Your task to perform on an android device: turn pop-ups on in chrome Image 0: 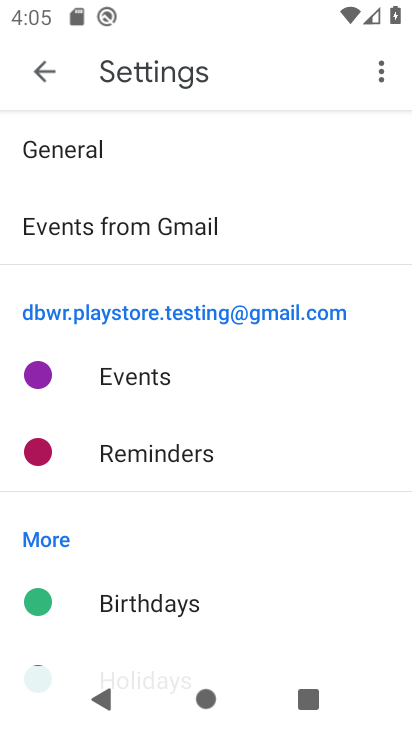
Step 0: press home button
Your task to perform on an android device: turn pop-ups on in chrome Image 1: 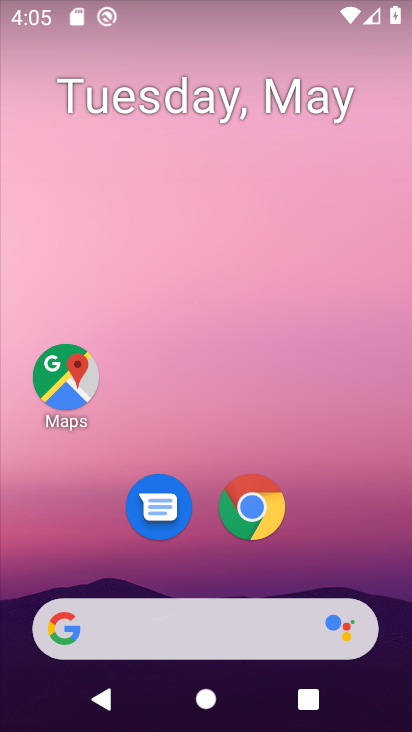
Step 1: click (254, 506)
Your task to perform on an android device: turn pop-ups on in chrome Image 2: 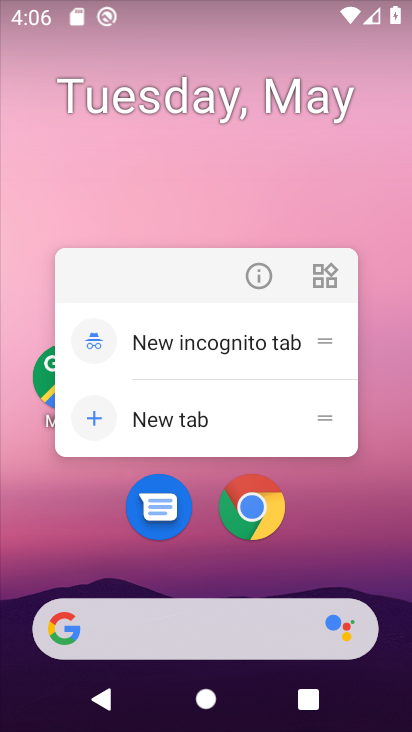
Step 2: click (254, 506)
Your task to perform on an android device: turn pop-ups on in chrome Image 3: 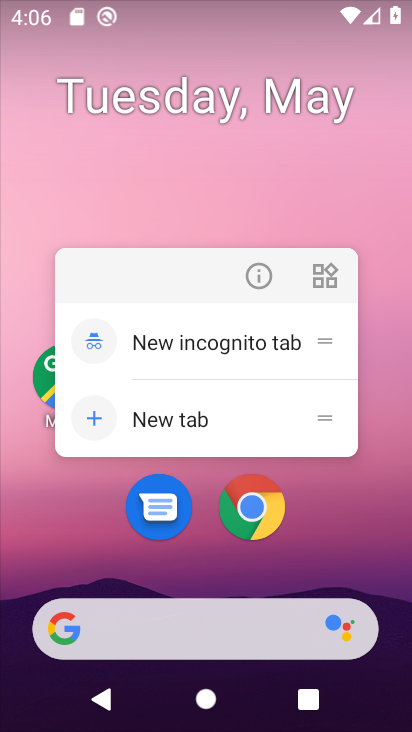
Step 3: click (254, 506)
Your task to perform on an android device: turn pop-ups on in chrome Image 4: 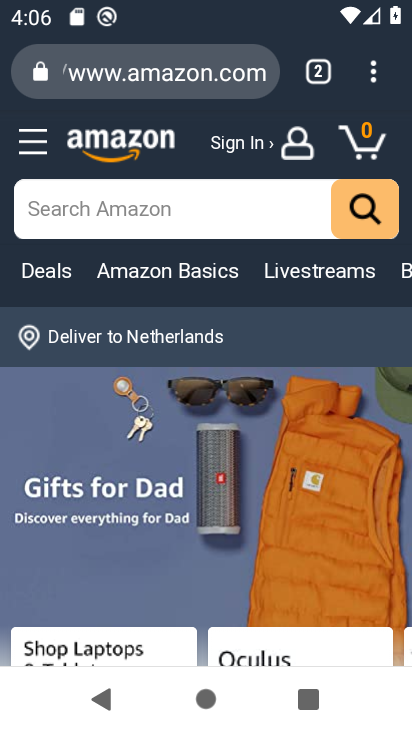
Step 4: click (364, 69)
Your task to perform on an android device: turn pop-ups on in chrome Image 5: 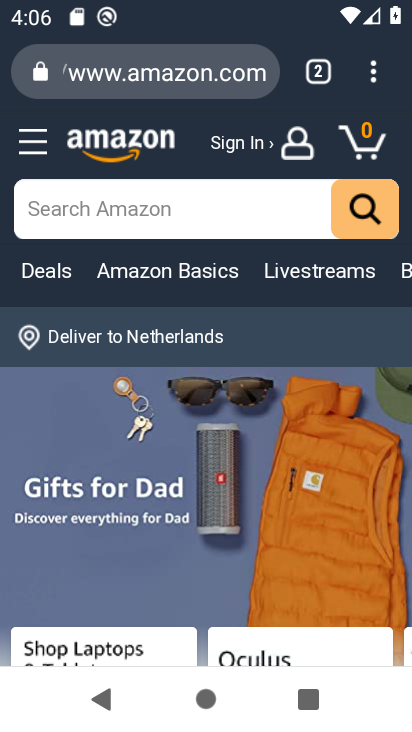
Step 5: click (365, 68)
Your task to perform on an android device: turn pop-ups on in chrome Image 6: 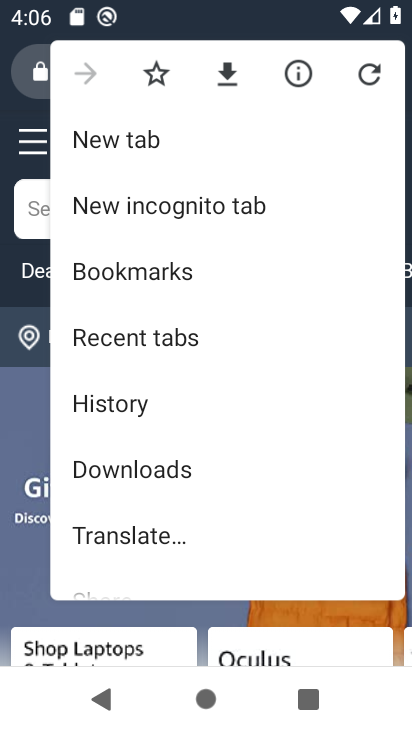
Step 6: drag from (178, 509) to (269, 230)
Your task to perform on an android device: turn pop-ups on in chrome Image 7: 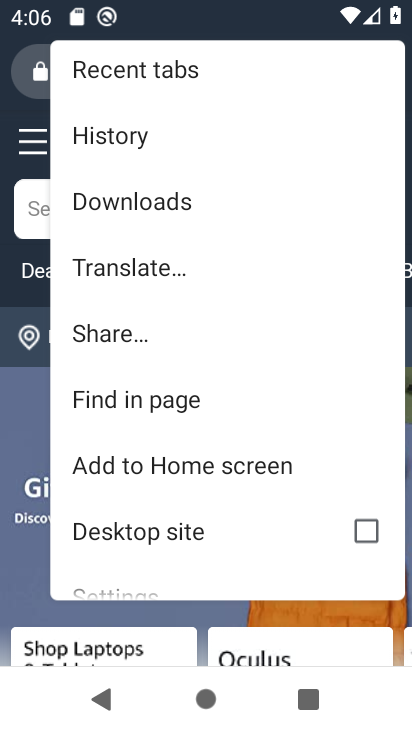
Step 7: drag from (171, 562) to (211, 358)
Your task to perform on an android device: turn pop-ups on in chrome Image 8: 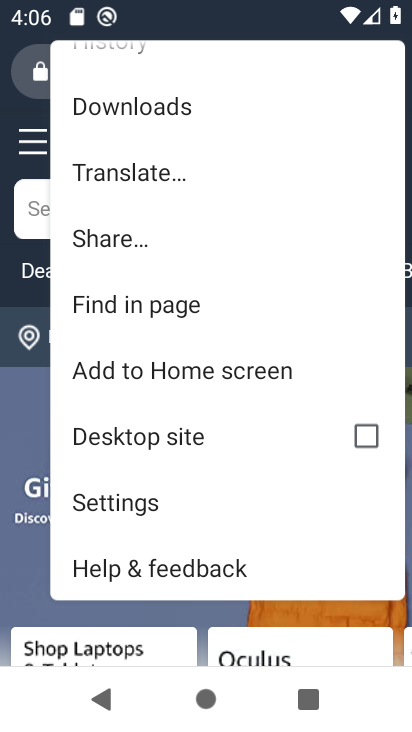
Step 8: click (146, 506)
Your task to perform on an android device: turn pop-ups on in chrome Image 9: 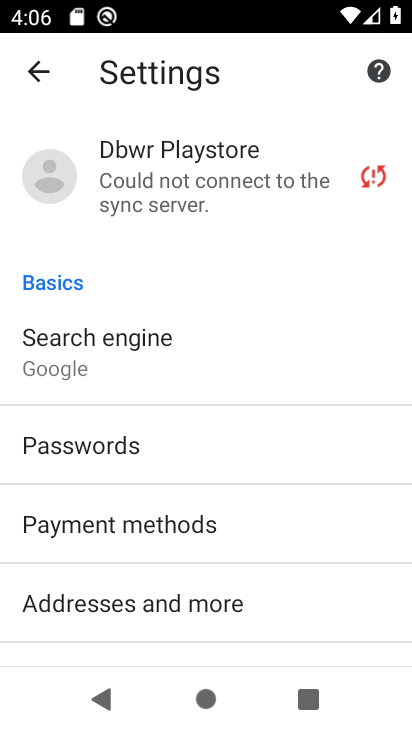
Step 9: drag from (140, 594) to (194, 350)
Your task to perform on an android device: turn pop-ups on in chrome Image 10: 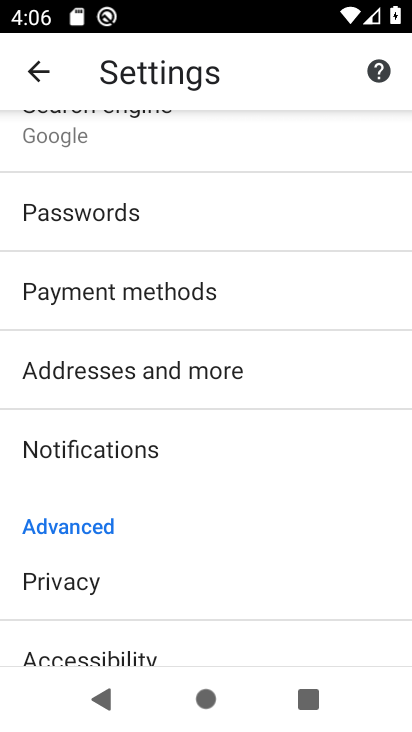
Step 10: drag from (198, 601) to (268, 306)
Your task to perform on an android device: turn pop-ups on in chrome Image 11: 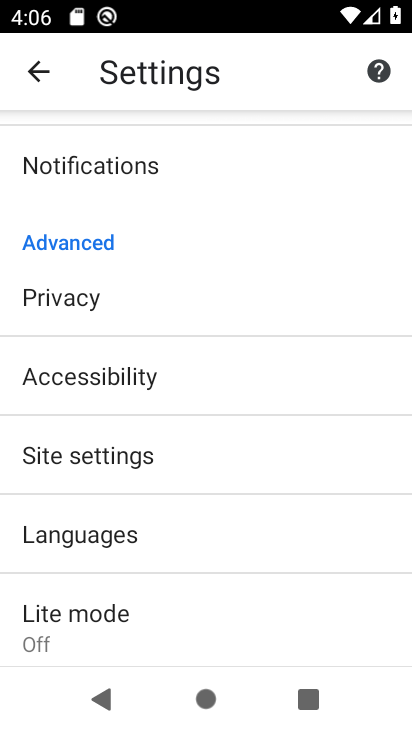
Step 11: click (163, 434)
Your task to perform on an android device: turn pop-ups on in chrome Image 12: 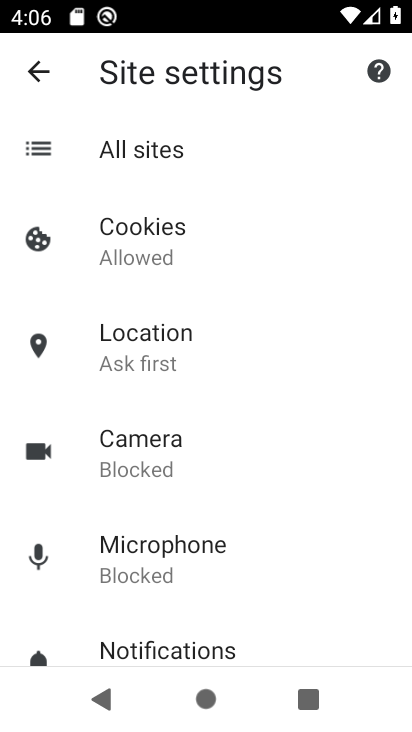
Step 12: drag from (204, 643) to (260, 430)
Your task to perform on an android device: turn pop-ups on in chrome Image 13: 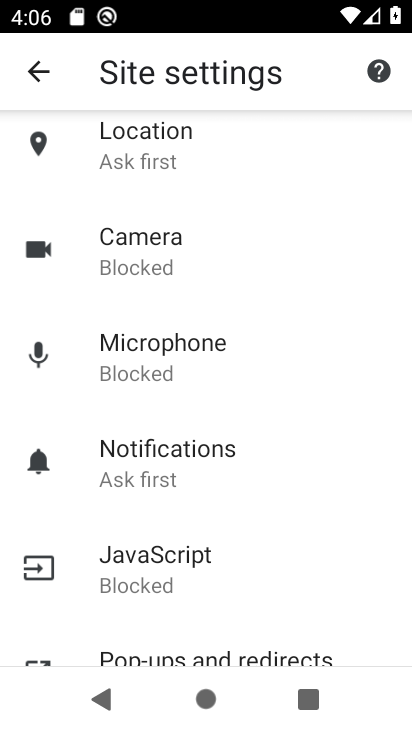
Step 13: drag from (206, 644) to (253, 462)
Your task to perform on an android device: turn pop-ups on in chrome Image 14: 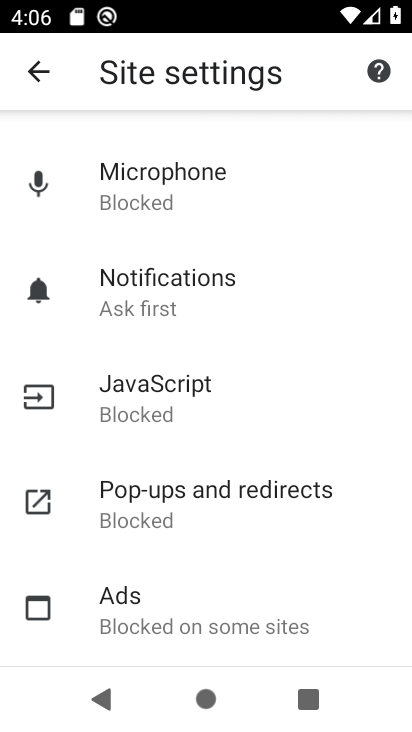
Step 14: click (219, 496)
Your task to perform on an android device: turn pop-ups on in chrome Image 15: 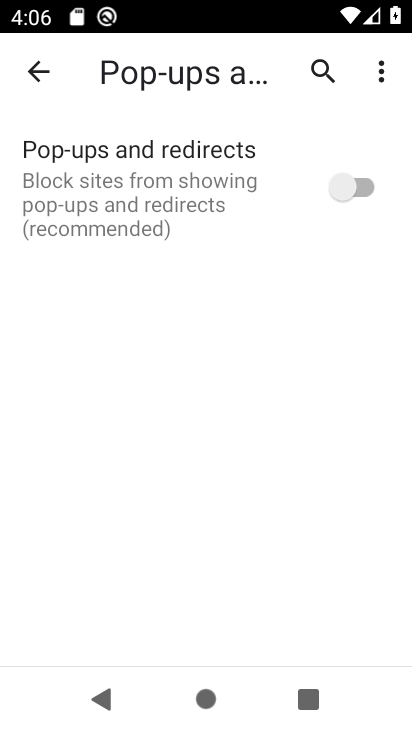
Step 15: click (333, 190)
Your task to perform on an android device: turn pop-ups on in chrome Image 16: 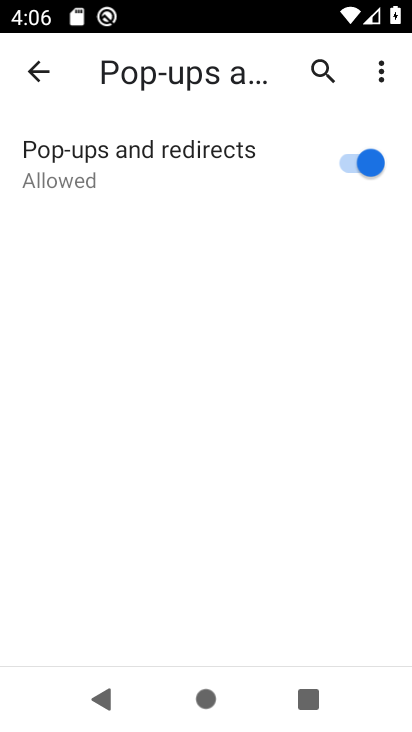
Step 16: task complete